Your task to perform on an android device: stop showing notifications on the lock screen Image 0: 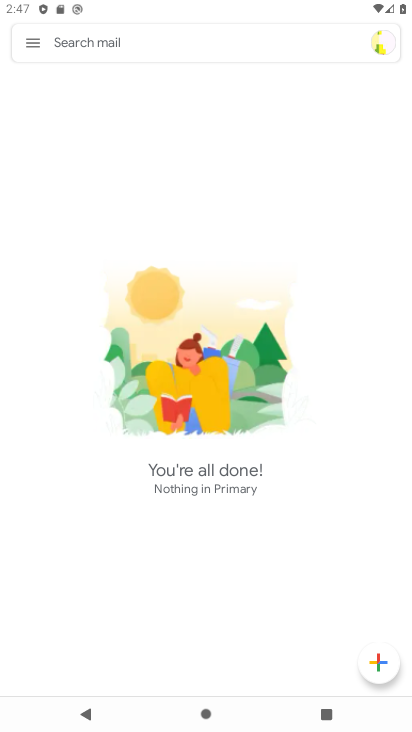
Step 0: press back button
Your task to perform on an android device: stop showing notifications on the lock screen Image 1: 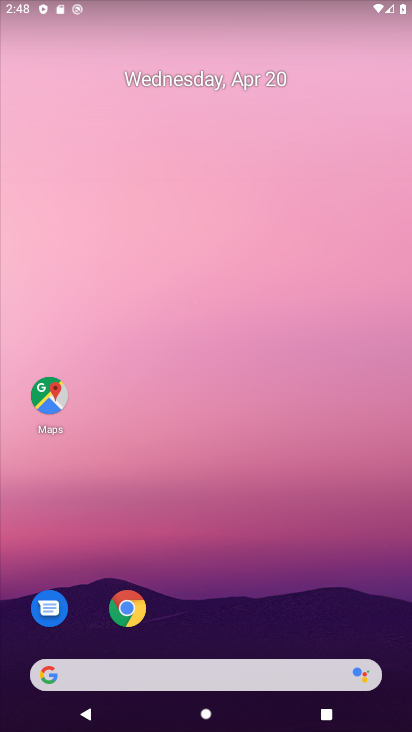
Step 1: drag from (220, 463) to (312, 44)
Your task to perform on an android device: stop showing notifications on the lock screen Image 2: 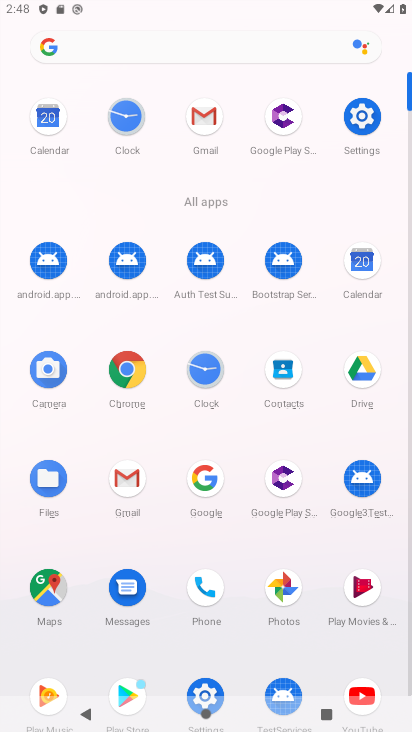
Step 2: click (368, 118)
Your task to perform on an android device: stop showing notifications on the lock screen Image 3: 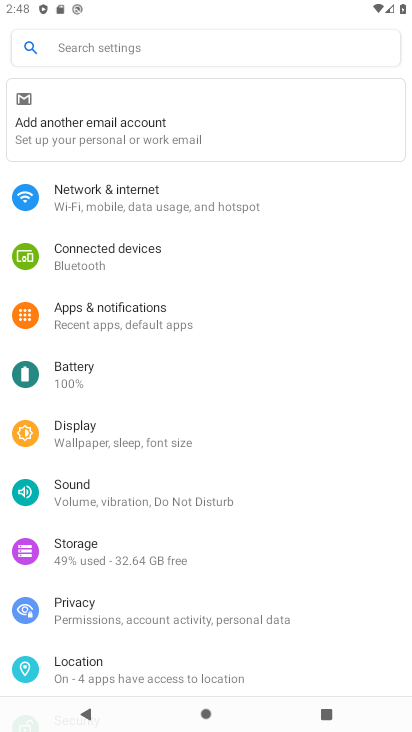
Step 3: click (52, 326)
Your task to perform on an android device: stop showing notifications on the lock screen Image 4: 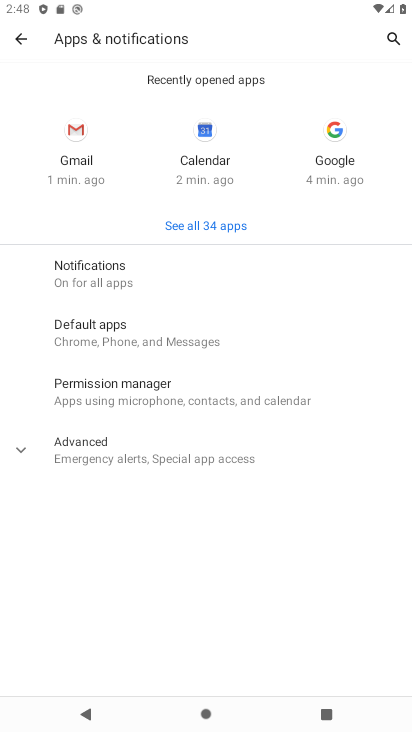
Step 4: click (159, 270)
Your task to perform on an android device: stop showing notifications on the lock screen Image 5: 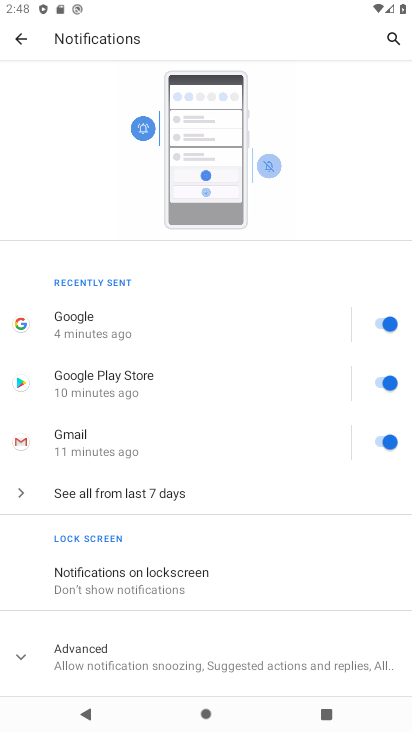
Step 5: click (160, 591)
Your task to perform on an android device: stop showing notifications on the lock screen Image 6: 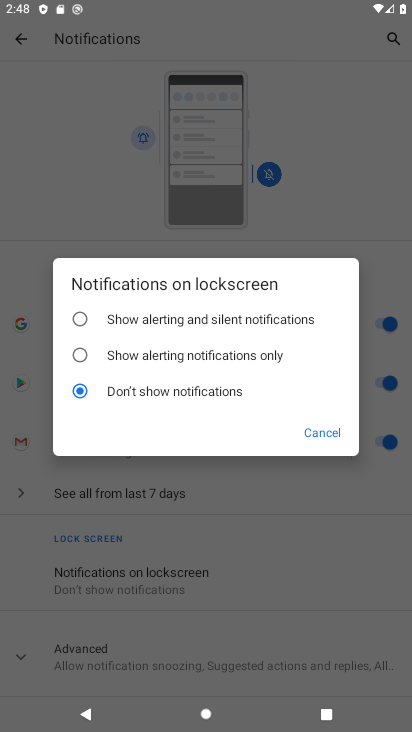
Step 6: task complete